Your task to perform on an android device: turn notification dots on Image 0: 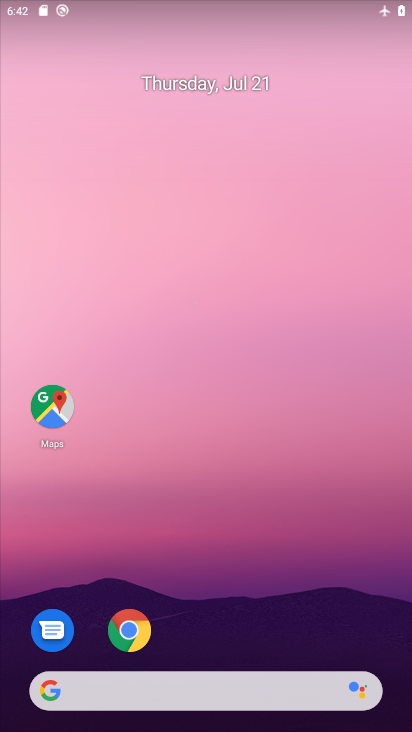
Step 0: drag from (213, 685) to (286, 235)
Your task to perform on an android device: turn notification dots on Image 1: 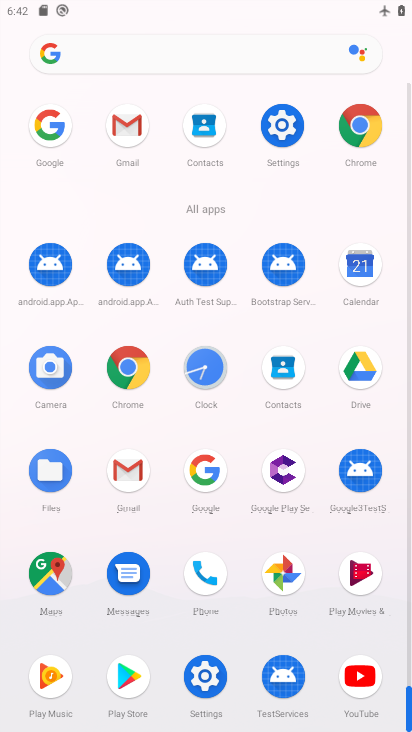
Step 1: click (282, 123)
Your task to perform on an android device: turn notification dots on Image 2: 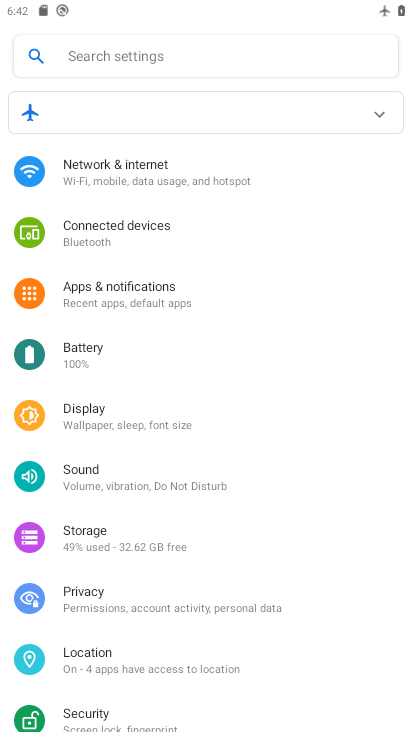
Step 2: click (110, 291)
Your task to perform on an android device: turn notification dots on Image 3: 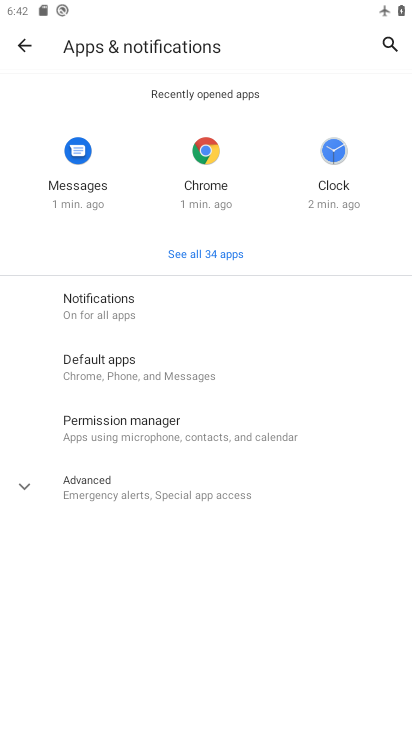
Step 3: click (110, 312)
Your task to perform on an android device: turn notification dots on Image 4: 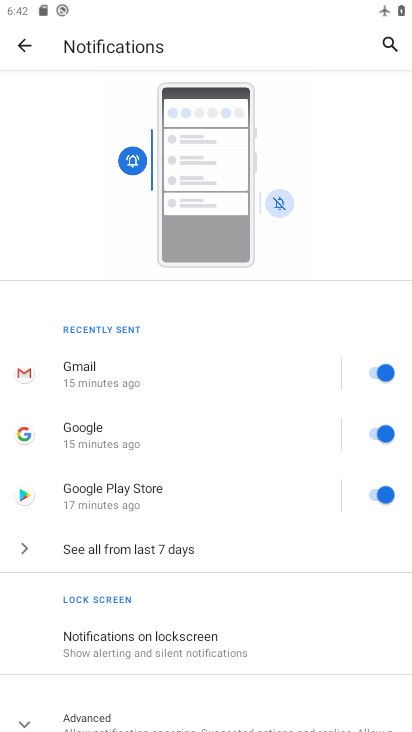
Step 4: drag from (174, 692) to (238, 565)
Your task to perform on an android device: turn notification dots on Image 5: 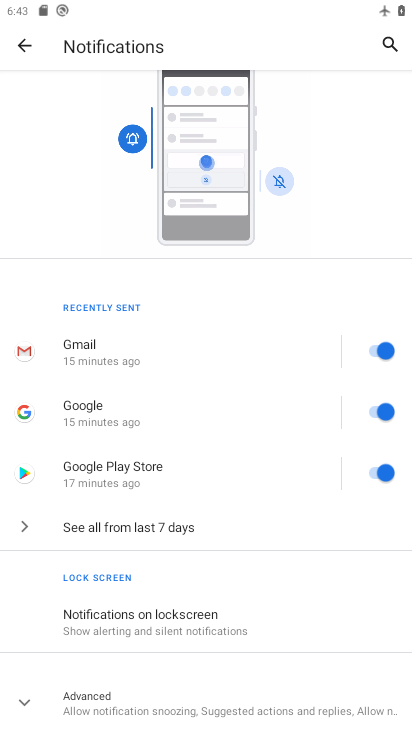
Step 5: click (127, 709)
Your task to perform on an android device: turn notification dots on Image 6: 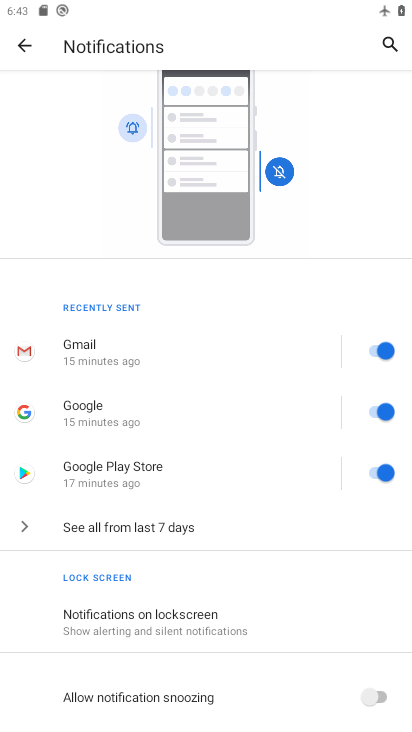
Step 6: task complete